Your task to perform on an android device: Clear all items from cart on ebay. Search for "macbook pro 13 inch" on ebay, select the first entry, add it to the cart, then select checkout. Image 0: 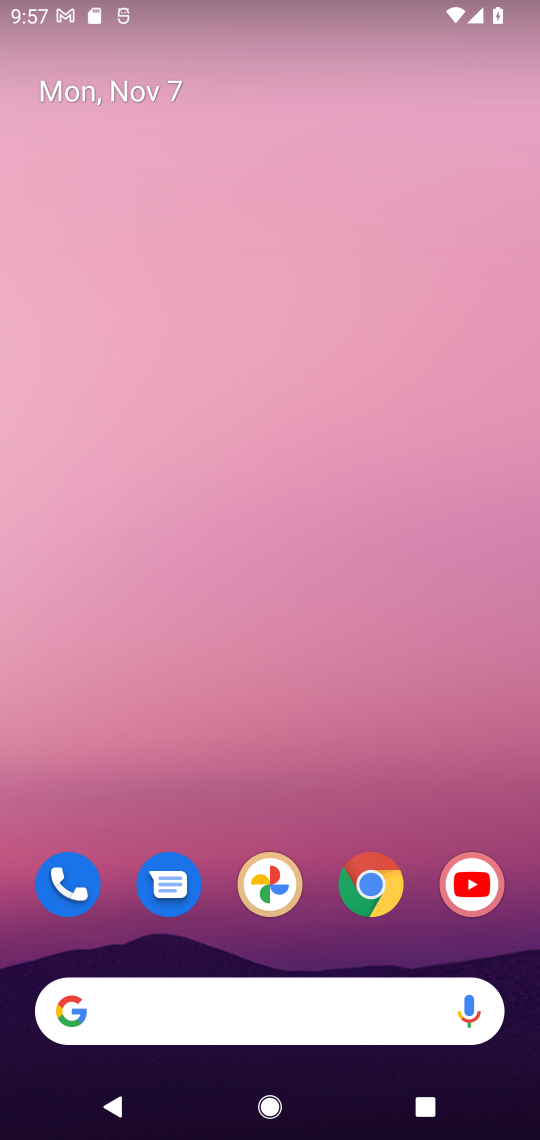
Step 0: click (365, 890)
Your task to perform on an android device: Clear all items from cart on ebay. Search for "macbook pro 13 inch" on ebay, select the first entry, add it to the cart, then select checkout. Image 1: 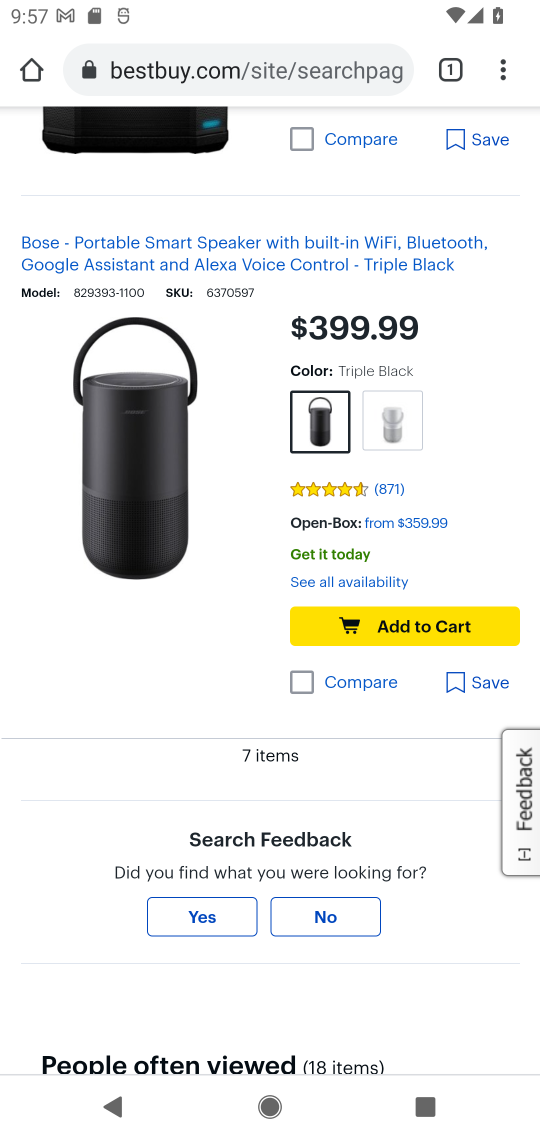
Step 1: click (237, 63)
Your task to perform on an android device: Clear all items from cart on ebay. Search for "macbook pro 13 inch" on ebay, select the first entry, add it to the cart, then select checkout. Image 2: 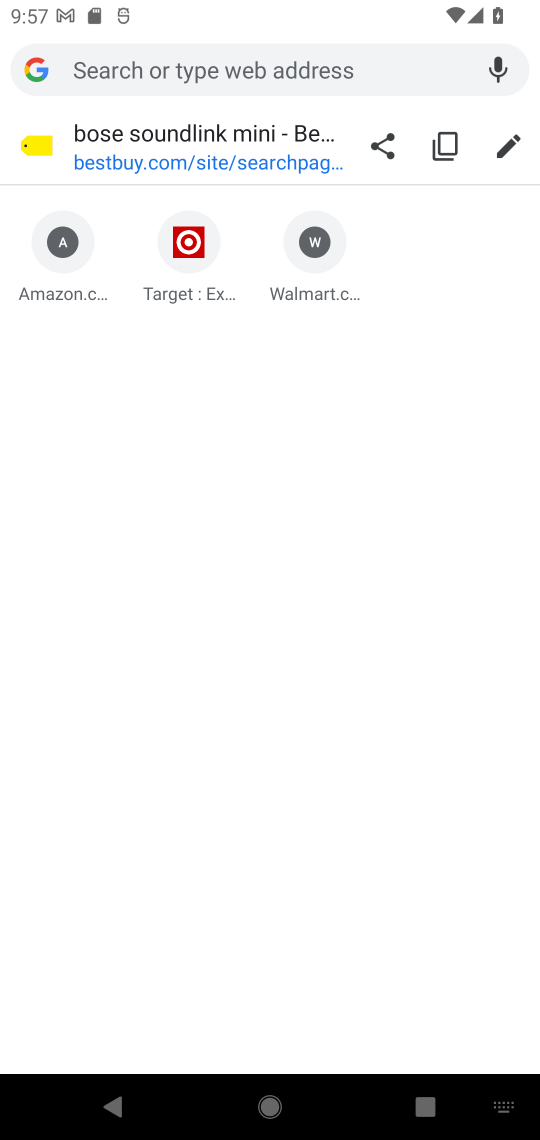
Step 2: type "ebay"
Your task to perform on an android device: Clear all items from cart on ebay. Search for "macbook pro 13 inch" on ebay, select the first entry, add it to the cart, then select checkout. Image 3: 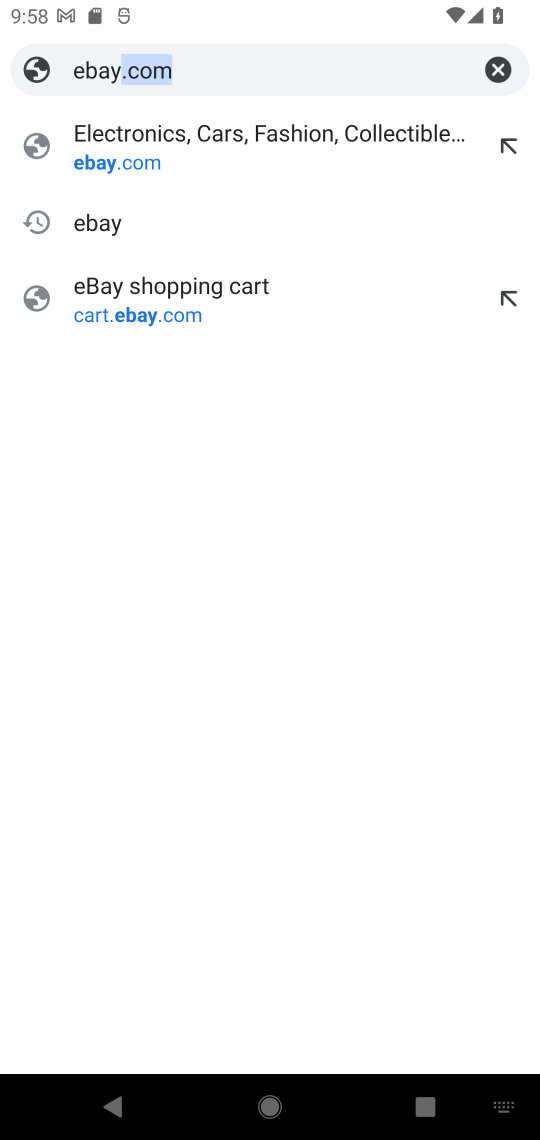
Step 3: click (261, 62)
Your task to perform on an android device: Clear all items from cart on ebay. Search for "macbook pro 13 inch" on ebay, select the first entry, add it to the cart, then select checkout. Image 4: 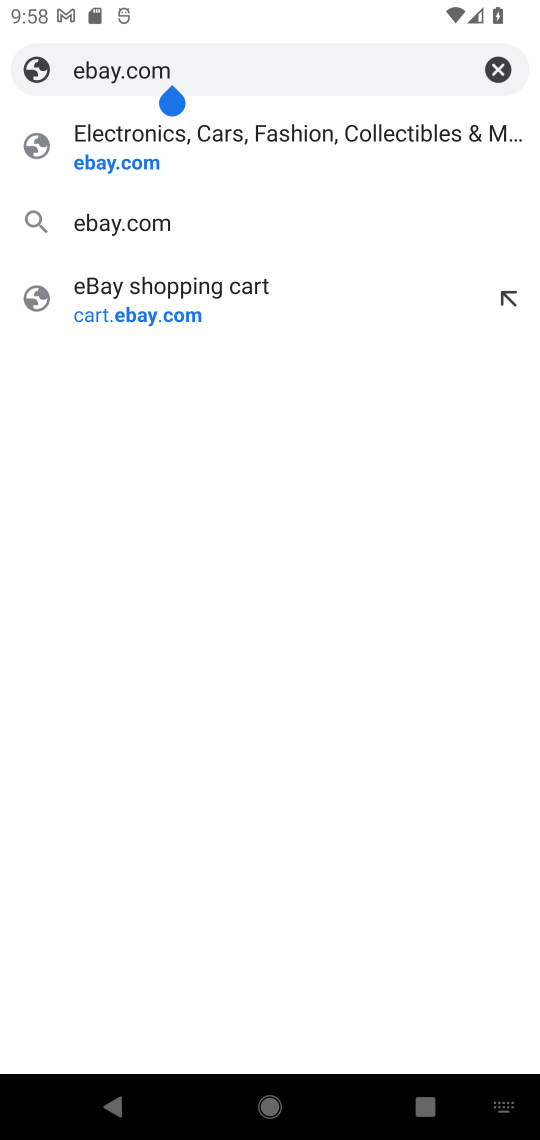
Step 4: click (141, 215)
Your task to perform on an android device: Clear all items from cart on ebay. Search for "macbook pro 13 inch" on ebay, select the first entry, add it to the cart, then select checkout. Image 5: 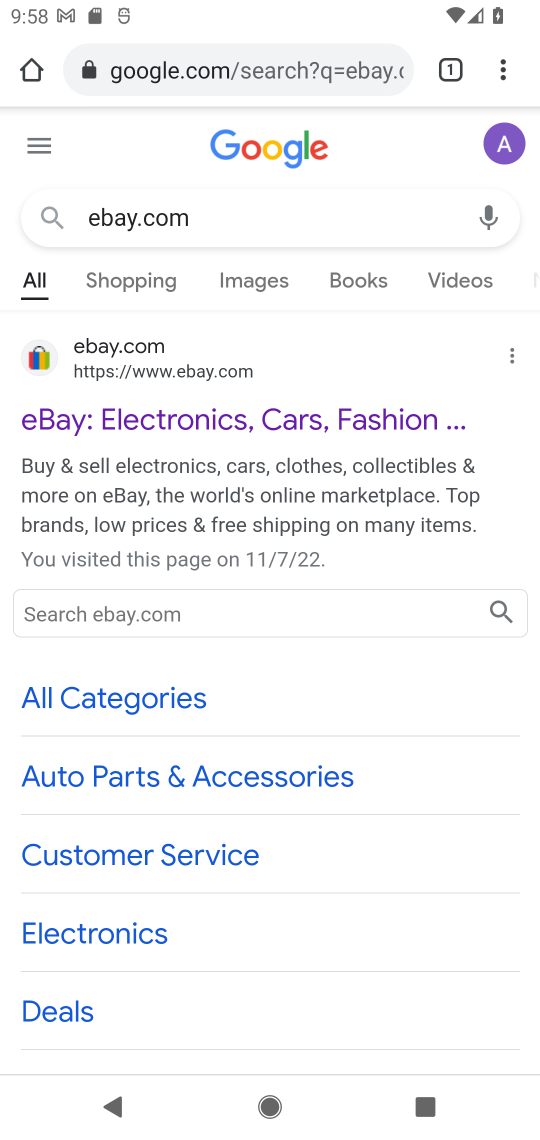
Step 5: click (173, 368)
Your task to perform on an android device: Clear all items from cart on ebay. Search for "macbook pro 13 inch" on ebay, select the first entry, add it to the cart, then select checkout. Image 6: 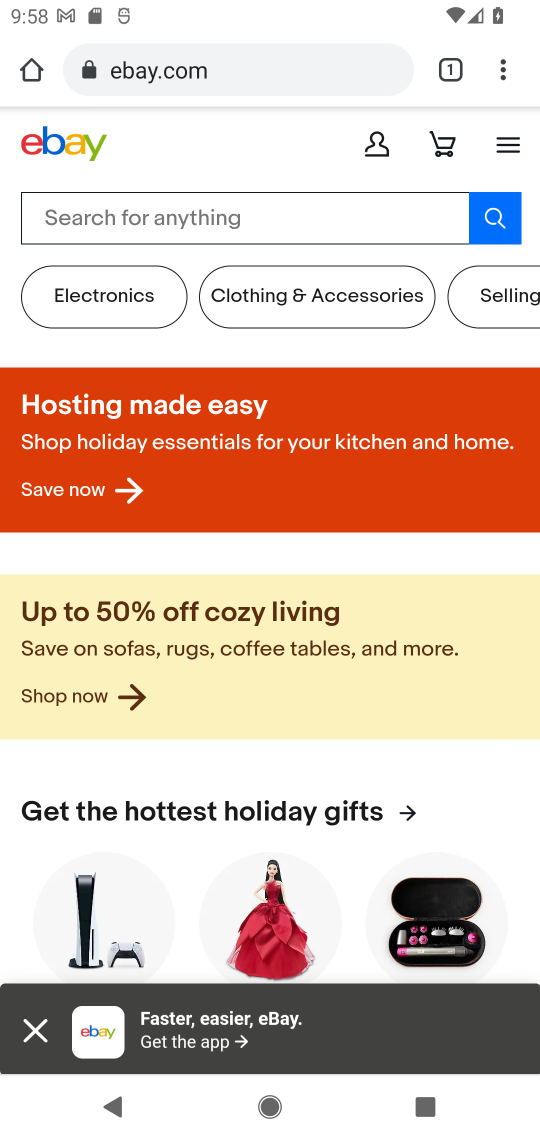
Step 6: click (446, 145)
Your task to perform on an android device: Clear all items from cart on ebay. Search for "macbook pro 13 inch" on ebay, select the first entry, add it to the cart, then select checkout. Image 7: 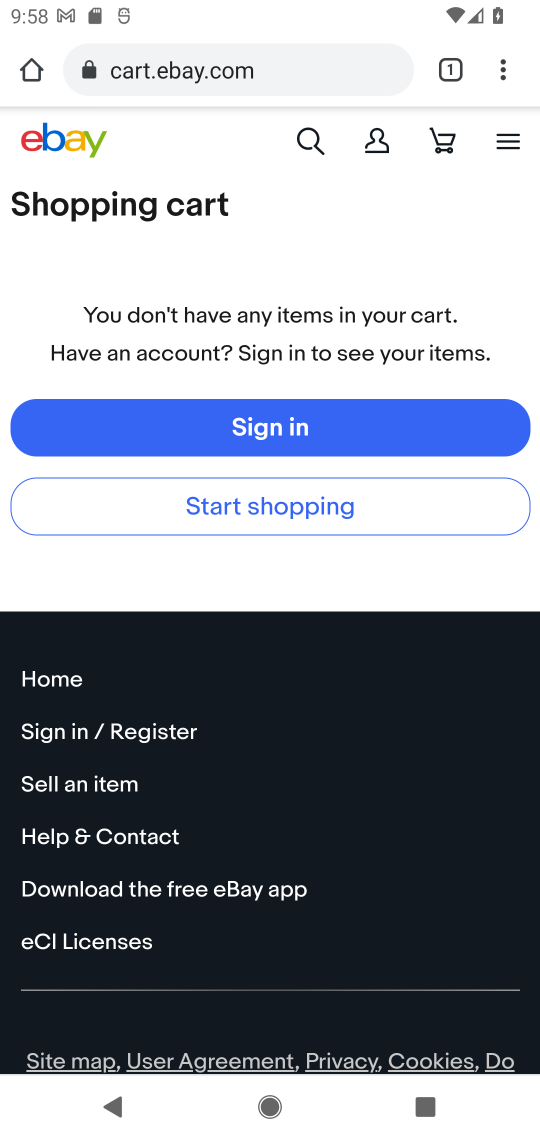
Step 7: click (302, 136)
Your task to perform on an android device: Clear all items from cart on ebay. Search for "macbook pro 13 inch" on ebay, select the first entry, add it to the cart, then select checkout. Image 8: 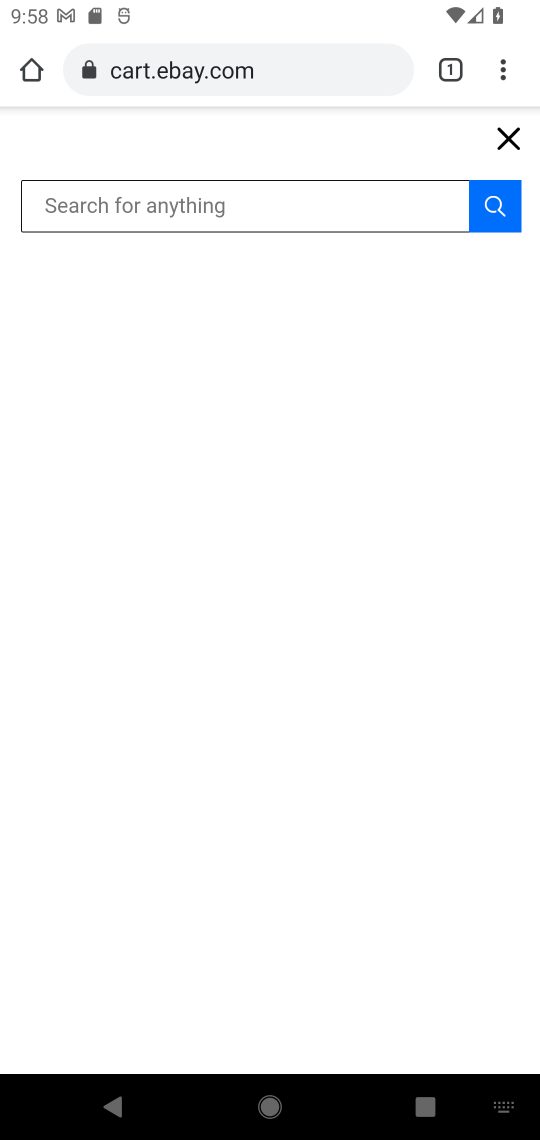
Step 8: type "macbook pro 13 inch"
Your task to perform on an android device: Clear all items from cart on ebay. Search for "macbook pro 13 inch" on ebay, select the first entry, add it to the cart, then select checkout. Image 9: 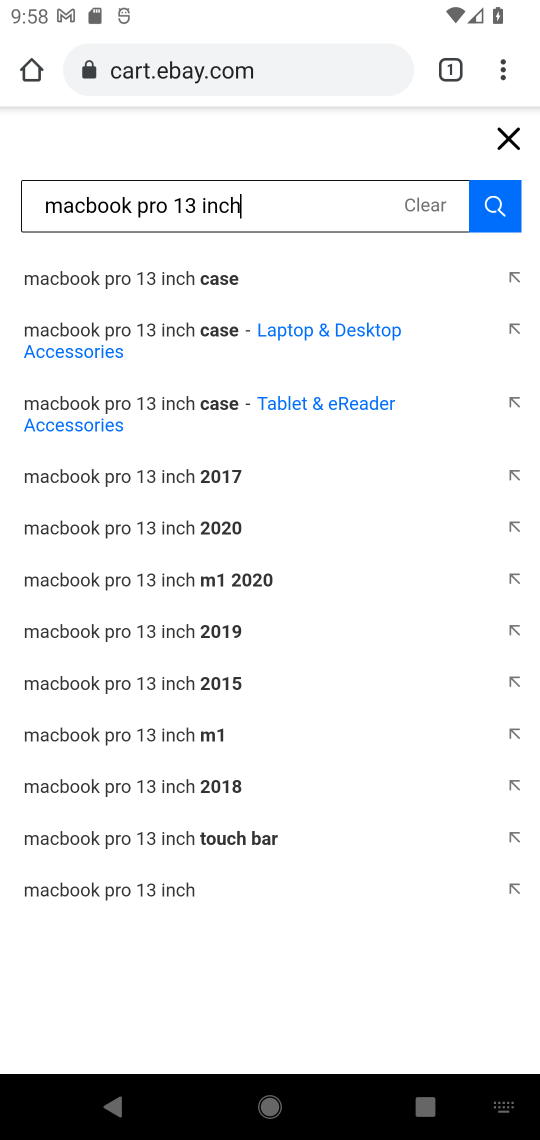
Step 9: click (180, 278)
Your task to perform on an android device: Clear all items from cart on ebay. Search for "macbook pro 13 inch" on ebay, select the first entry, add it to the cart, then select checkout. Image 10: 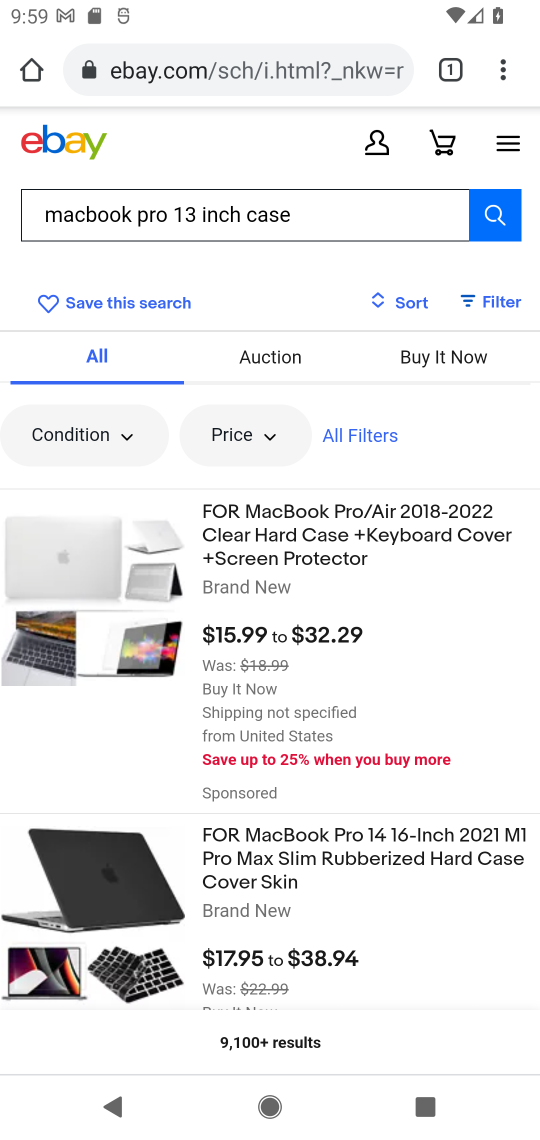
Step 10: drag from (153, 763) to (163, 269)
Your task to perform on an android device: Clear all items from cart on ebay. Search for "macbook pro 13 inch" on ebay, select the first entry, add it to the cart, then select checkout. Image 11: 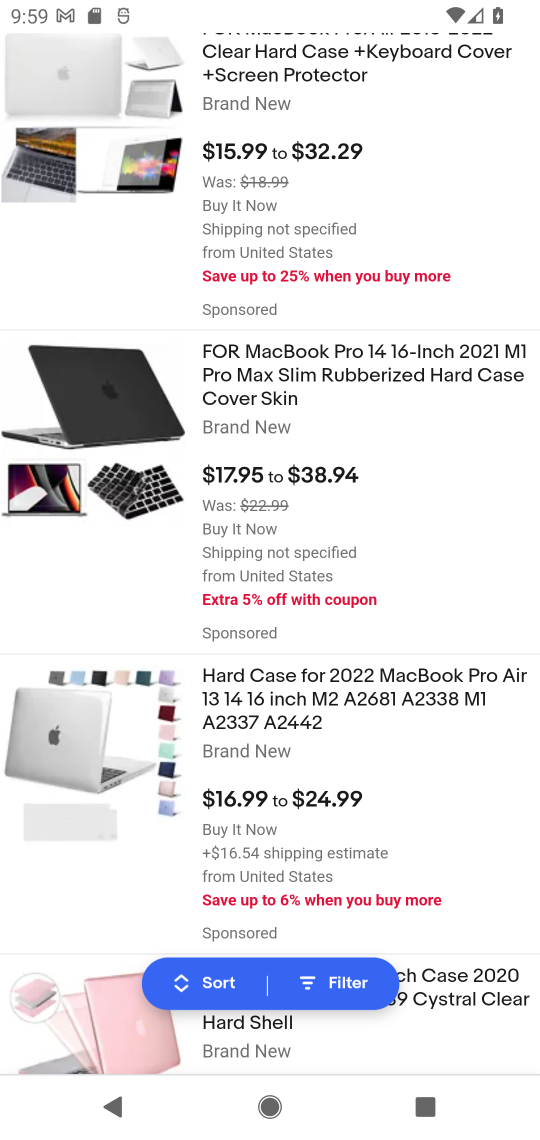
Step 11: drag from (87, 836) to (107, 306)
Your task to perform on an android device: Clear all items from cart on ebay. Search for "macbook pro 13 inch" on ebay, select the first entry, add it to the cart, then select checkout. Image 12: 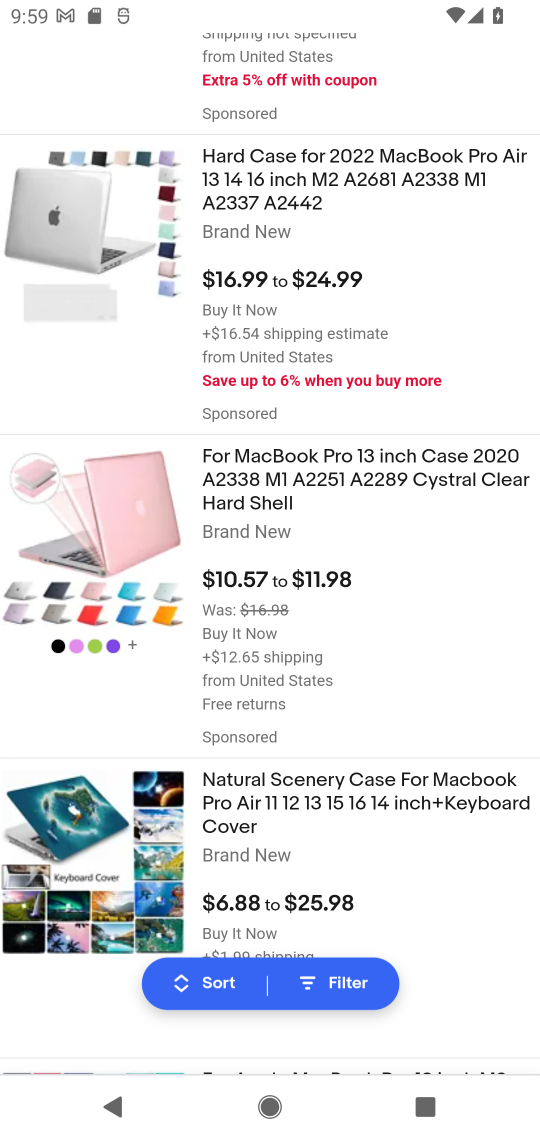
Step 12: click (68, 555)
Your task to perform on an android device: Clear all items from cart on ebay. Search for "macbook pro 13 inch" on ebay, select the first entry, add it to the cart, then select checkout. Image 13: 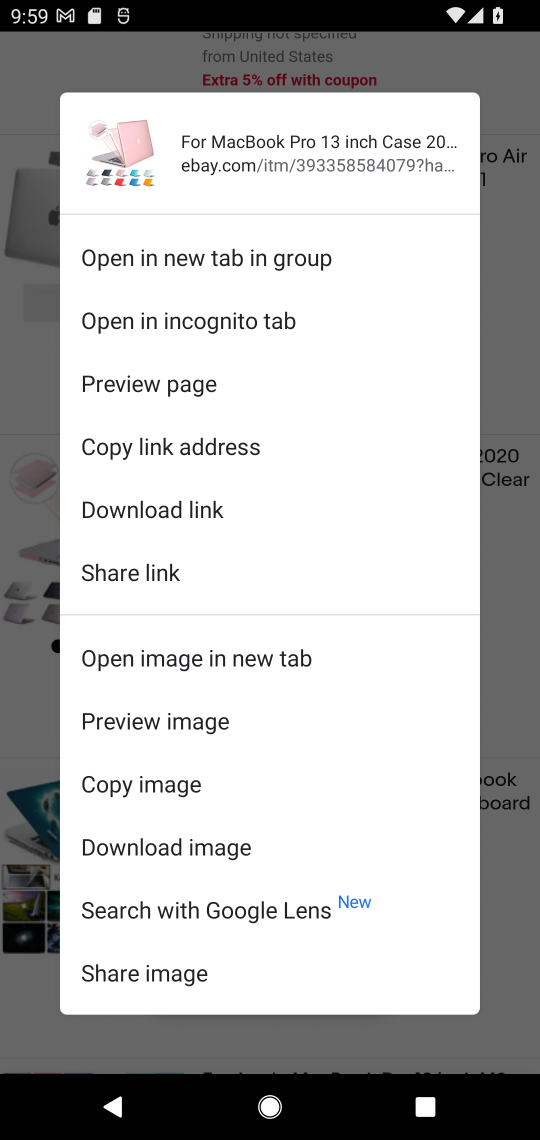
Step 13: click (506, 390)
Your task to perform on an android device: Clear all items from cart on ebay. Search for "macbook pro 13 inch" on ebay, select the first entry, add it to the cart, then select checkout. Image 14: 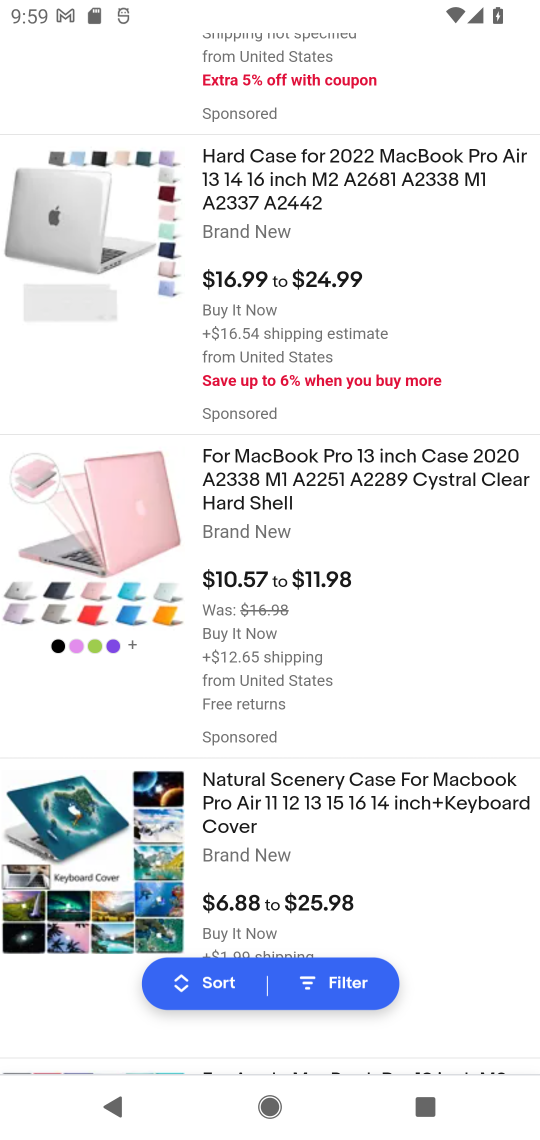
Step 14: click (65, 517)
Your task to perform on an android device: Clear all items from cart on ebay. Search for "macbook pro 13 inch" on ebay, select the first entry, add it to the cart, then select checkout. Image 15: 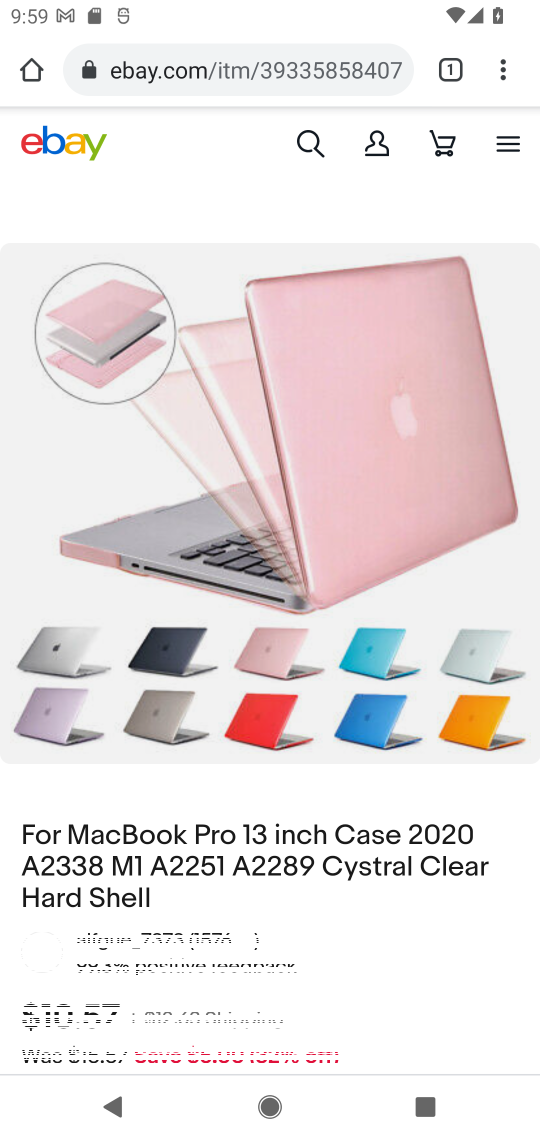
Step 15: drag from (346, 631) to (352, 268)
Your task to perform on an android device: Clear all items from cart on ebay. Search for "macbook pro 13 inch" on ebay, select the first entry, add it to the cart, then select checkout. Image 16: 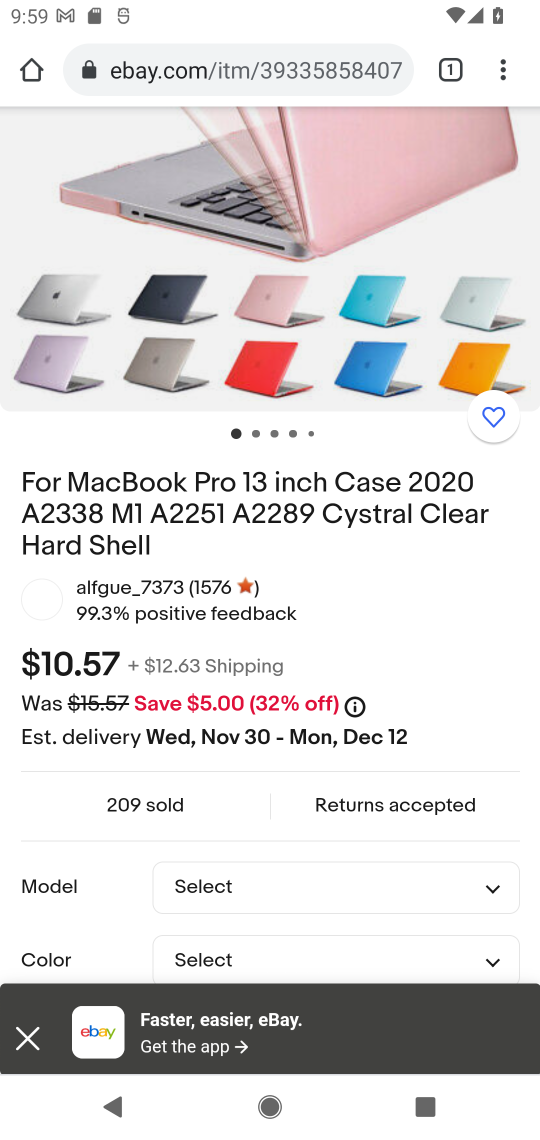
Step 16: drag from (450, 910) to (418, 325)
Your task to perform on an android device: Clear all items from cart on ebay. Search for "macbook pro 13 inch" on ebay, select the first entry, add it to the cart, then select checkout. Image 17: 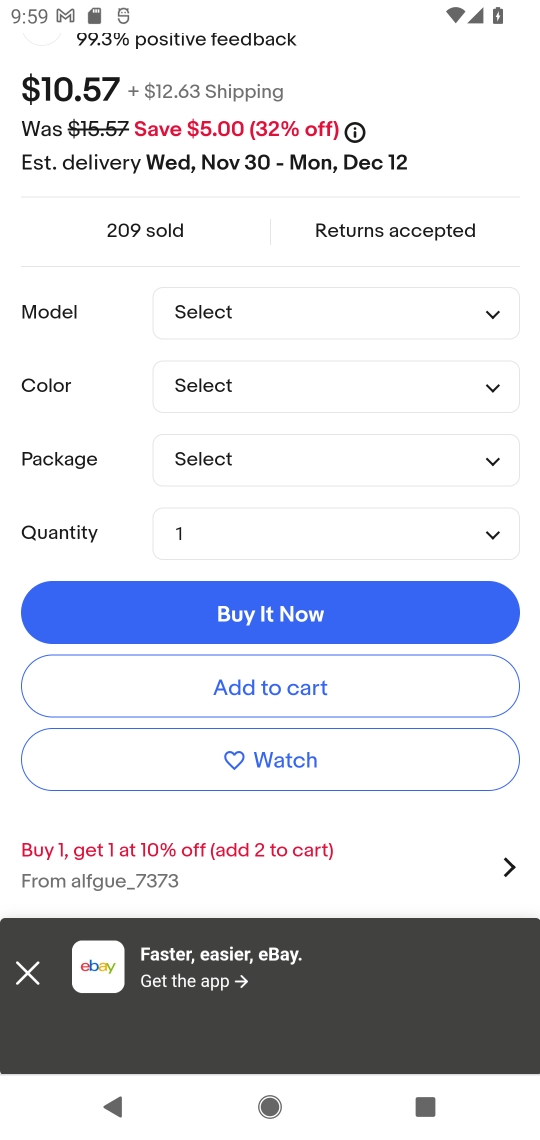
Step 17: click (266, 680)
Your task to perform on an android device: Clear all items from cart on ebay. Search for "macbook pro 13 inch" on ebay, select the first entry, add it to the cart, then select checkout. Image 18: 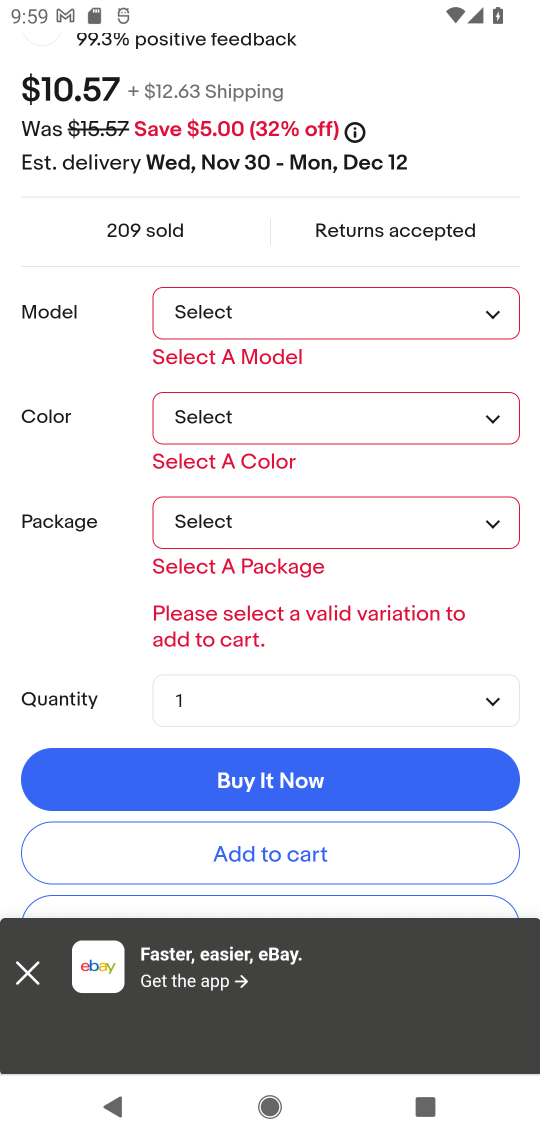
Step 18: press back button
Your task to perform on an android device: Clear all items from cart on ebay. Search for "macbook pro 13 inch" on ebay, select the first entry, add it to the cart, then select checkout. Image 19: 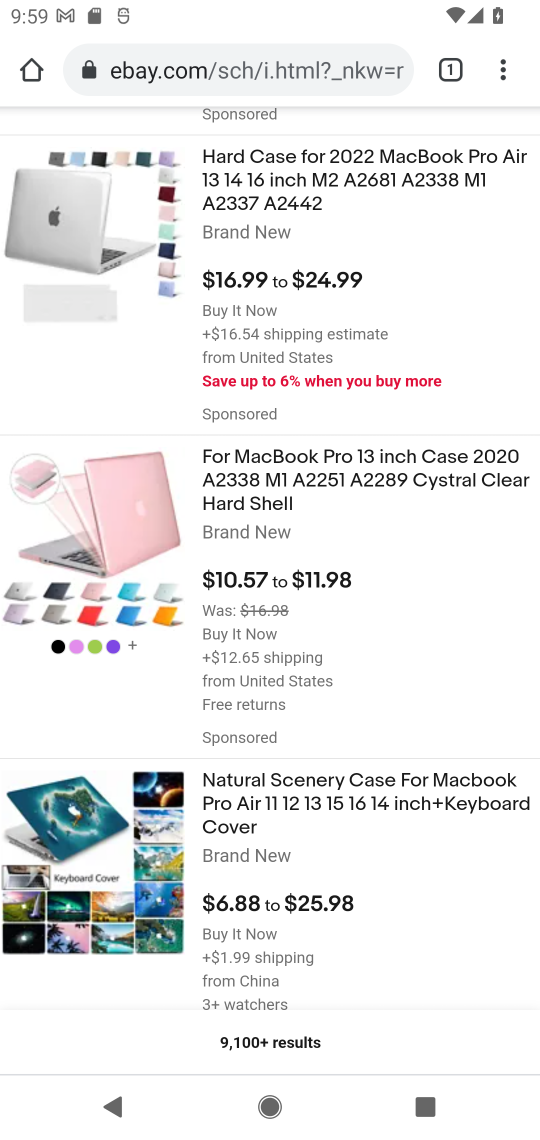
Step 19: drag from (324, 803) to (403, 382)
Your task to perform on an android device: Clear all items from cart on ebay. Search for "macbook pro 13 inch" on ebay, select the first entry, add it to the cart, then select checkout. Image 20: 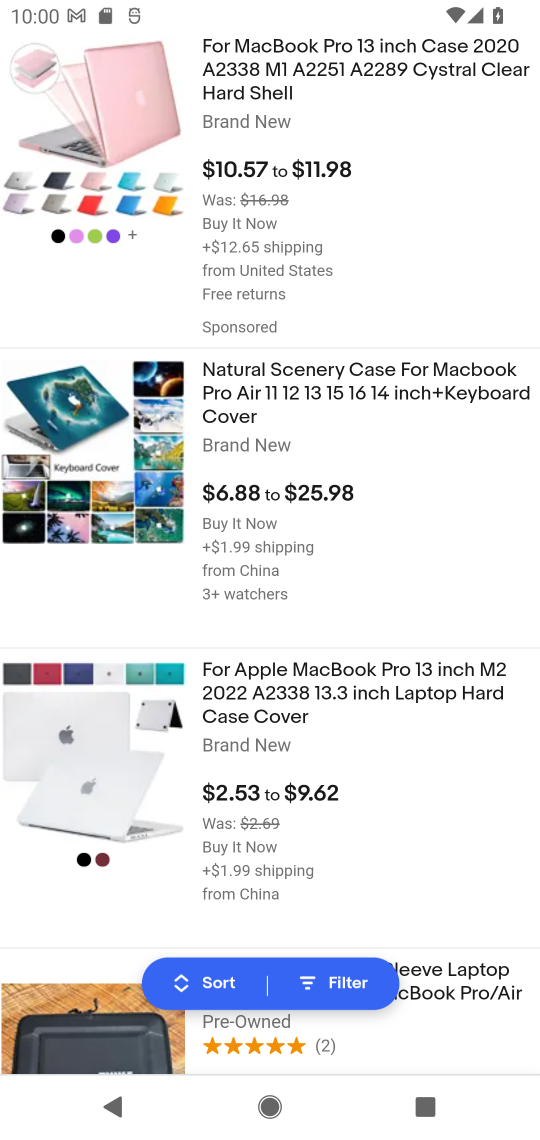
Step 20: click (104, 742)
Your task to perform on an android device: Clear all items from cart on ebay. Search for "macbook pro 13 inch" on ebay, select the first entry, add it to the cart, then select checkout. Image 21: 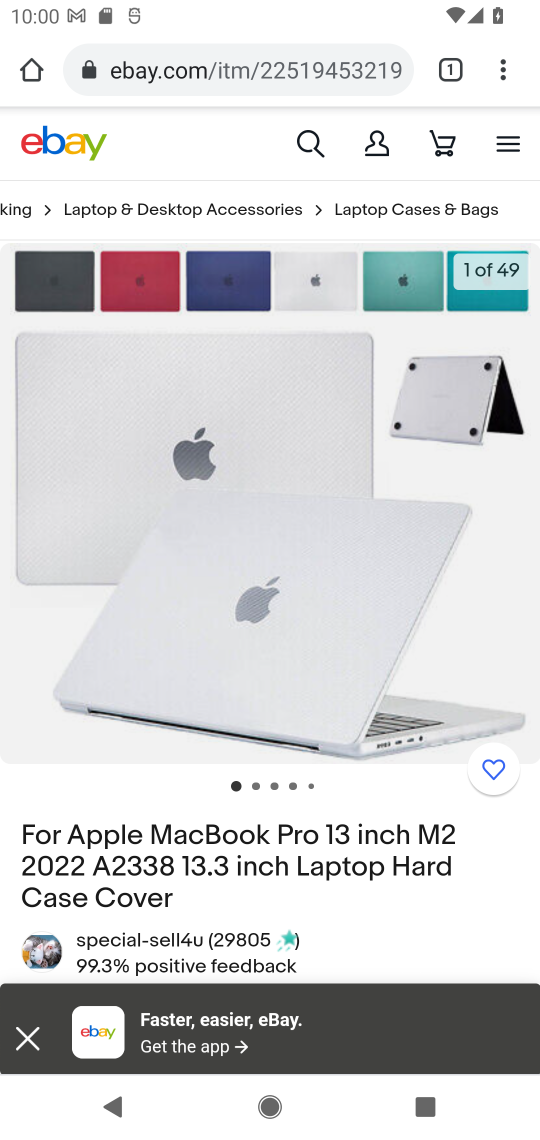
Step 21: drag from (413, 914) to (380, 195)
Your task to perform on an android device: Clear all items from cart on ebay. Search for "macbook pro 13 inch" on ebay, select the first entry, add it to the cart, then select checkout. Image 22: 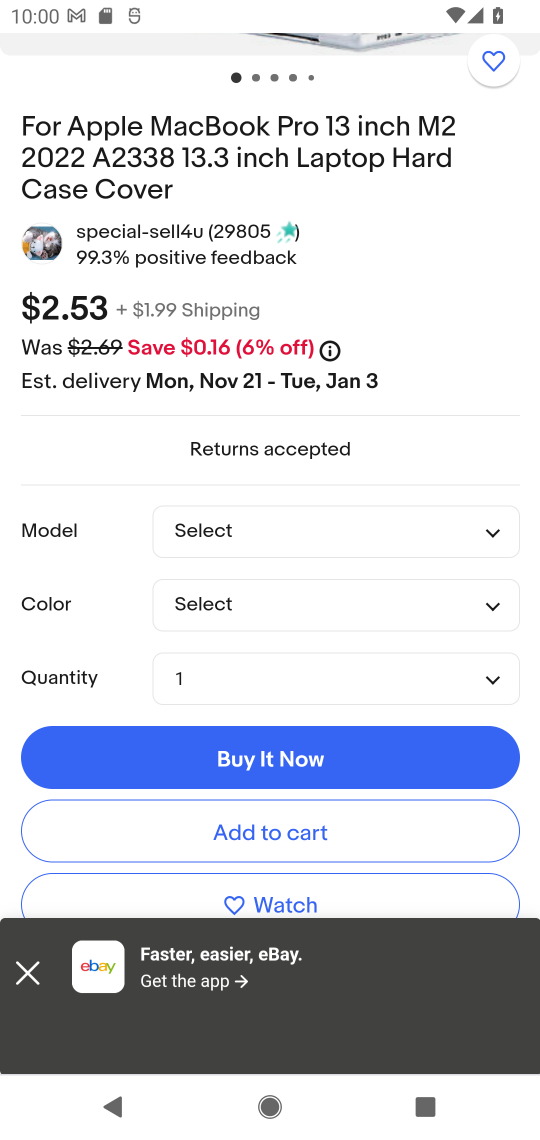
Step 22: click (279, 822)
Your task to perform on an android device: Clear all items from cart on ebay. Search for "macbook pro 13 inch" on ebay, select the first entry, add it to the cart, then select checkout. Image 23: 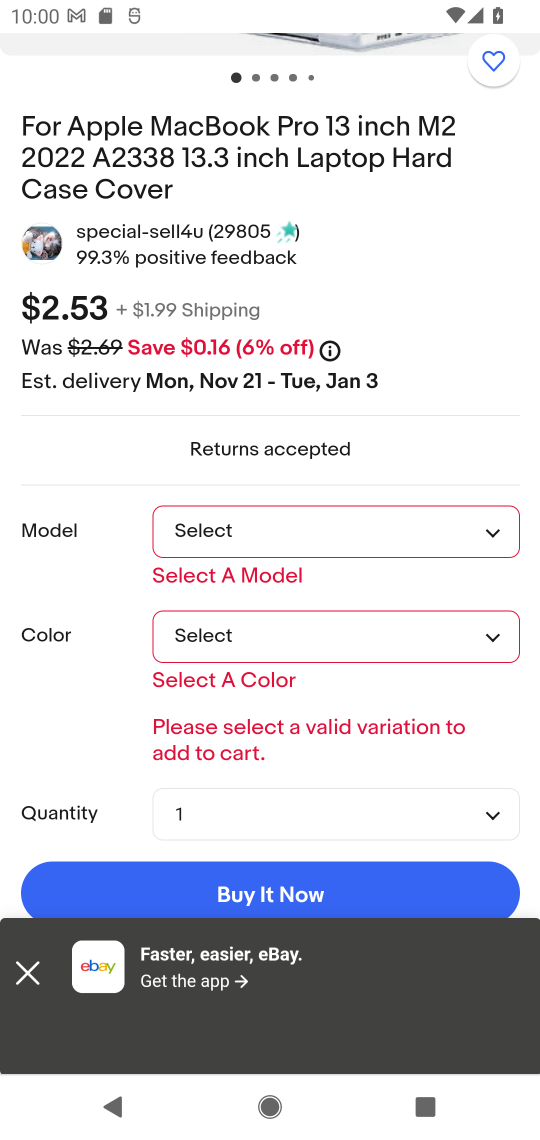
Step 23: drag from (437, 747) to (425, 415)
Your task to perform on an android device: Clear all items from cart on ebay. Search for "macbook pro 13 inch" on ebay, select the first entry, add it to the cart, then select checkout. Image 24: 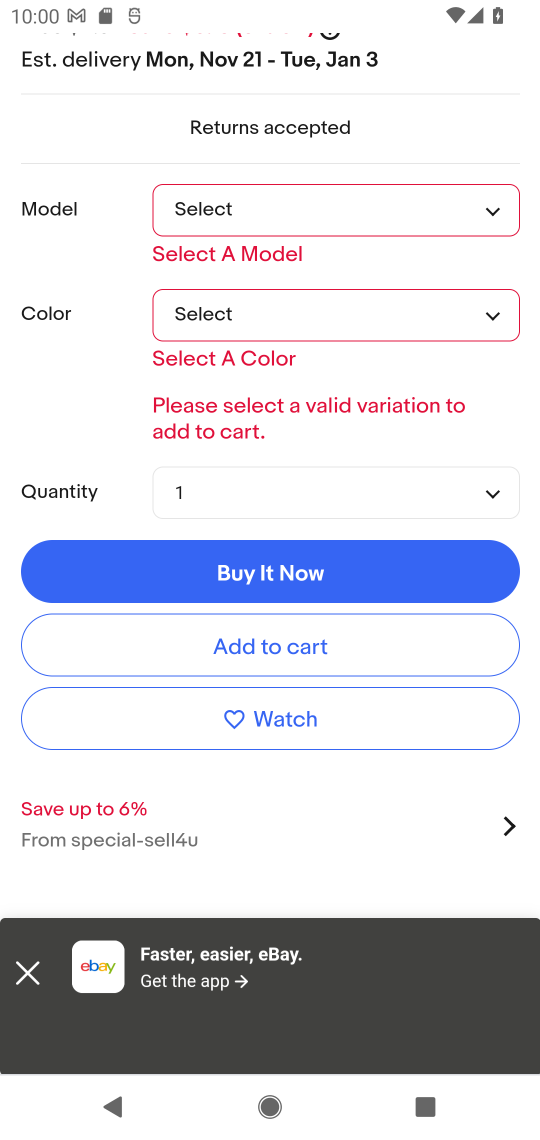
Step 24: click (288, 640)
Your task to perform on an android device: Clear all items from cart on ebay. Search for "macbook pro 13 inch" on ebay, select the first entry, add it to the cart, then select checkout. Image 25: 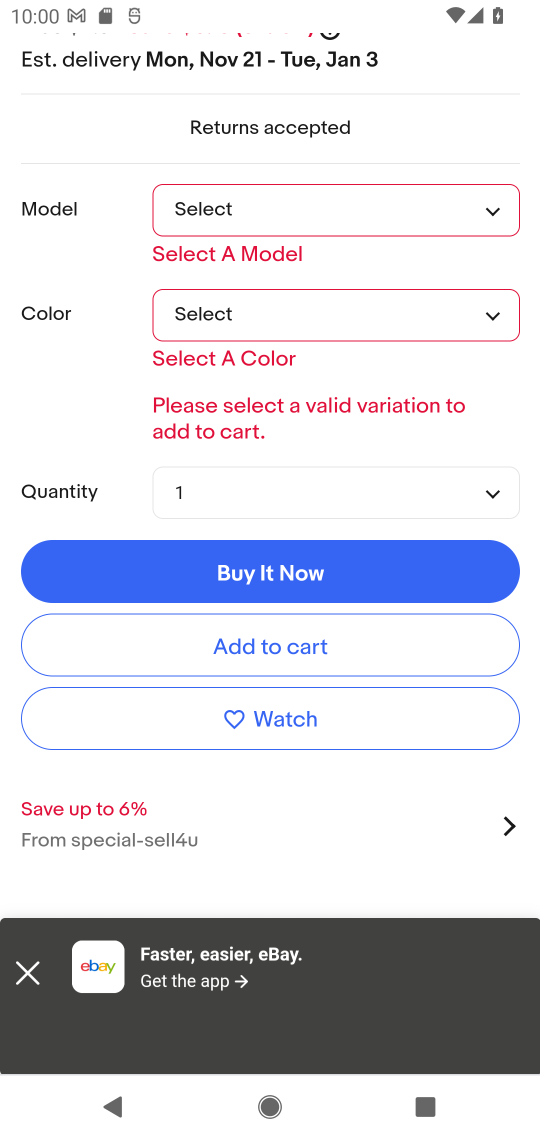
Step 25: click (306, 654)
Your task to perform on an android device: Clear all items from cart on ebay. Search for "macbook pro 13 inch" on ebay, select the first entry, add it to the cart, then select checkout. Image 26: 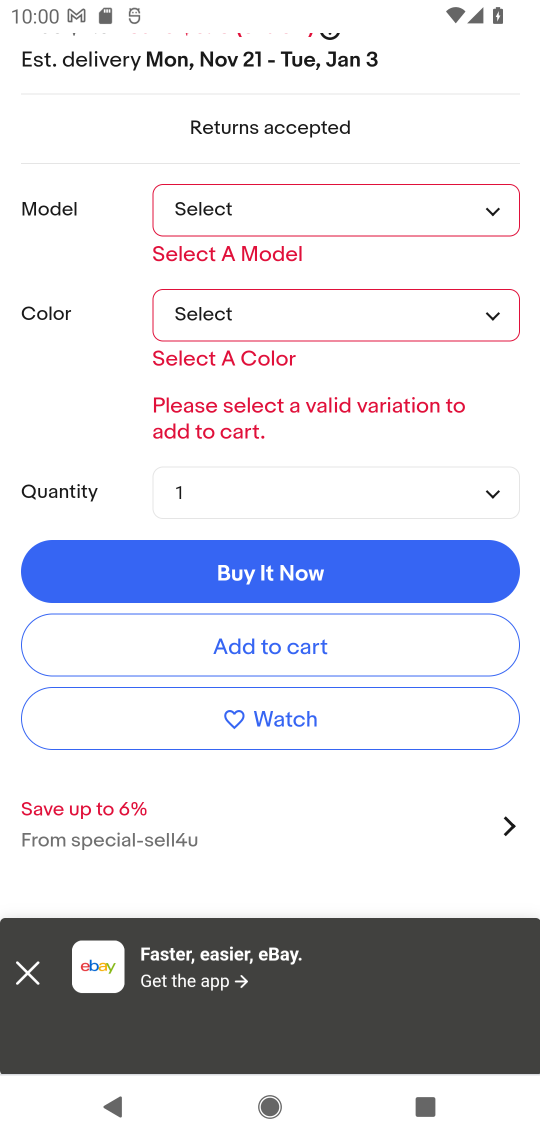
Step 26: task complete